Your task to perform on an android device: toggle pop-ups in chrome Image 0: 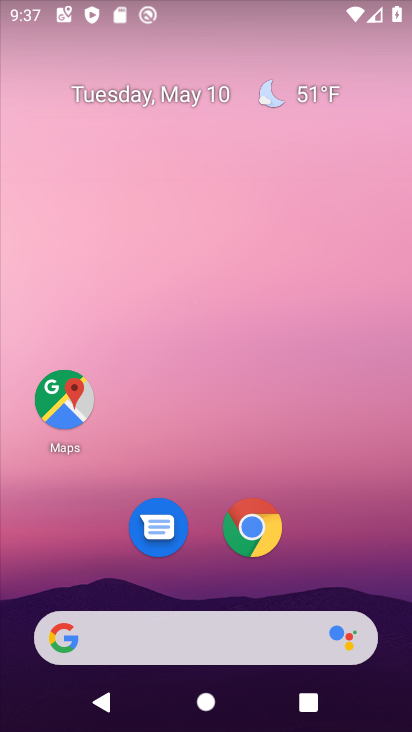
Step 0: click (257, 524)
Your task to perform on an android device: toggle pop-ups in chrome Image 1: 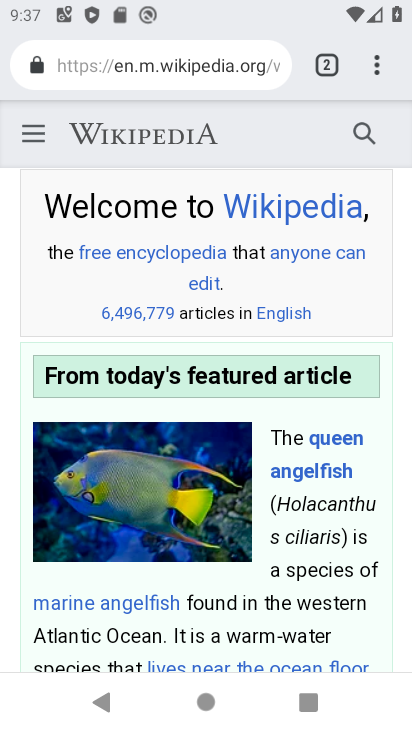
Step 1: click (378, 71)
Your task to perform on an android device: toggle pop-ups in chrome Image 2: 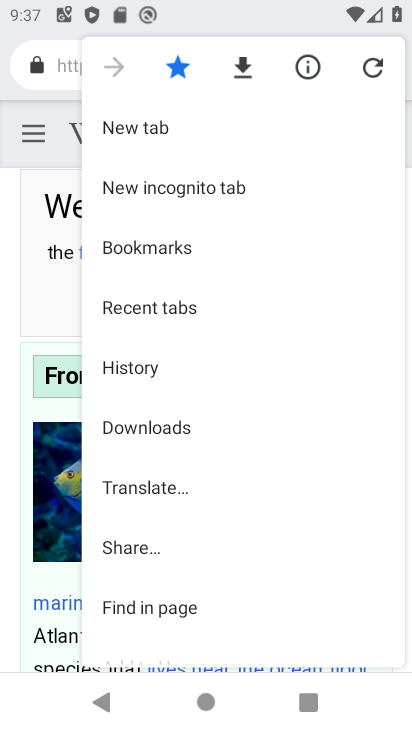
Step 2: drag from (158, 572) to (187, 206)
Your task to perform on an android device: toggle pop-ups in chrome Image 3: 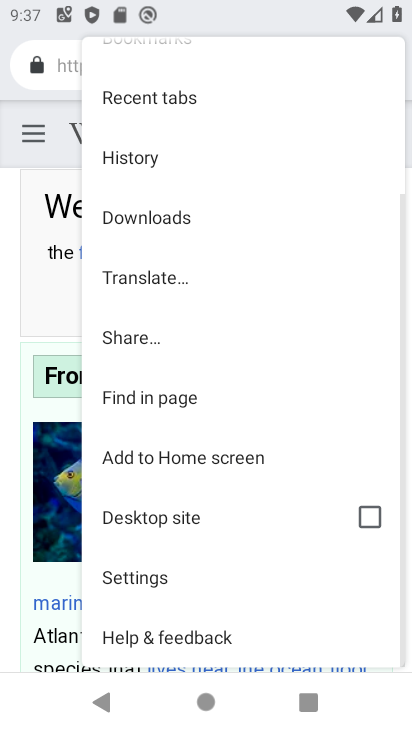
Step 3: click (139, 574)
Your task to perform on an android device: toggle pop-ups in chrome Image 4: 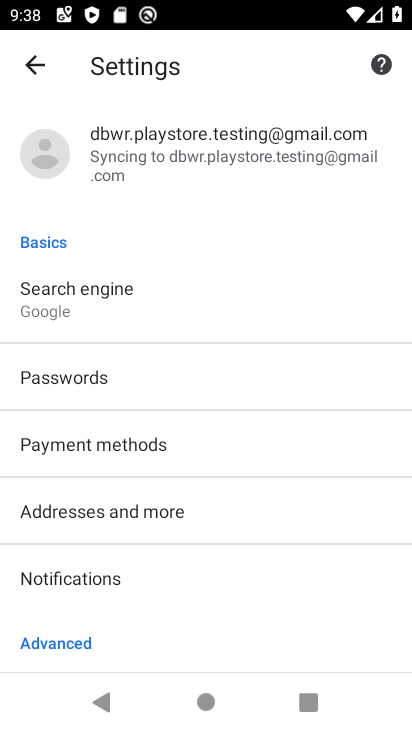
Step 4: drag from (134, 633) to (158, 285)
Your task to perform on an android device: toggle pop-ups in chrome Image 5: 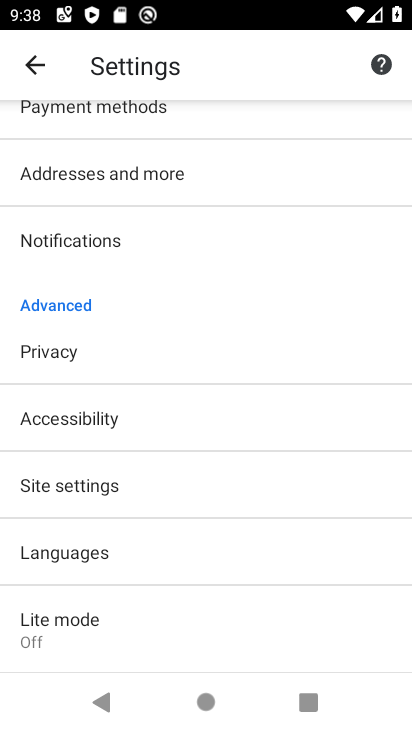
Step 5: click (88, 488)
Your task to perform on an android device: toggle pop-ups in chrome Image 6: 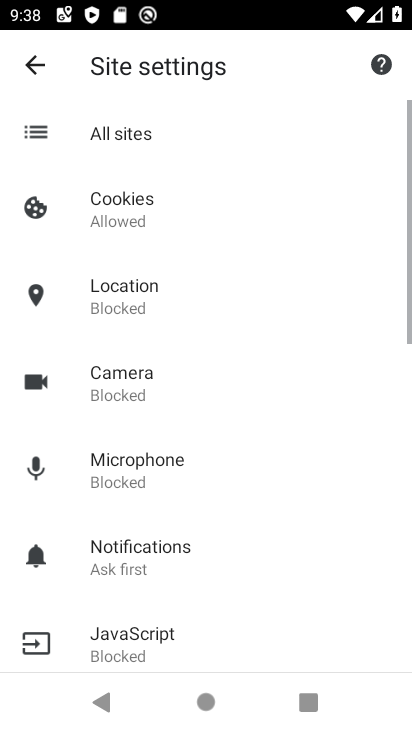
Step 6: drag from (176, 589) to (180, 273)
Your task to perform on an android device: toggle pop-ups in chrome Image 7: 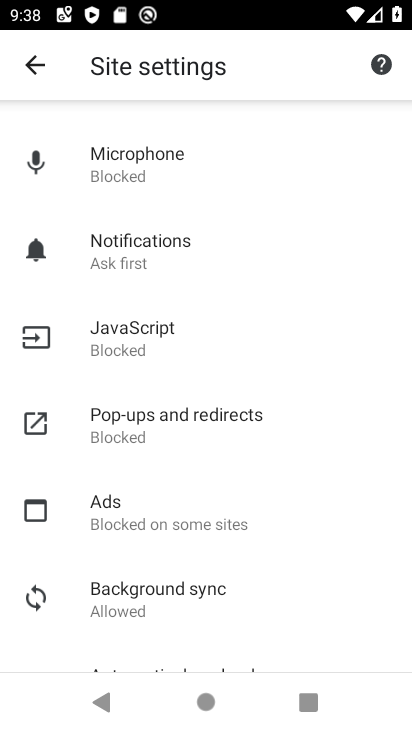
Step 7: click (148, 429)
Your task to perform on an android device: toggle pop-ups in chrome Image 8: 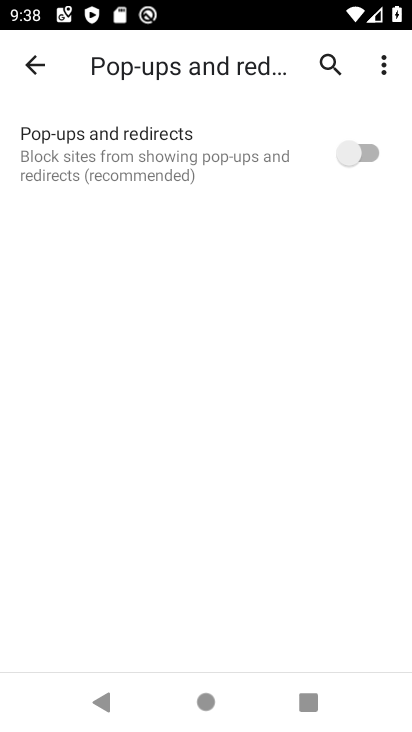
Step 8: click (366, 147)
Your task to perform on an android device: toggle pop-ups in chrome Image 9: 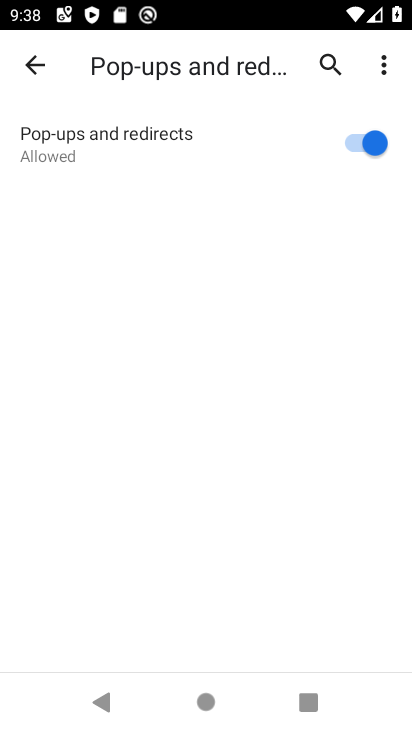
Step 9: click (351, 141)
Your task to perform on an android device: toggle pop-ups in chrome Image 10: 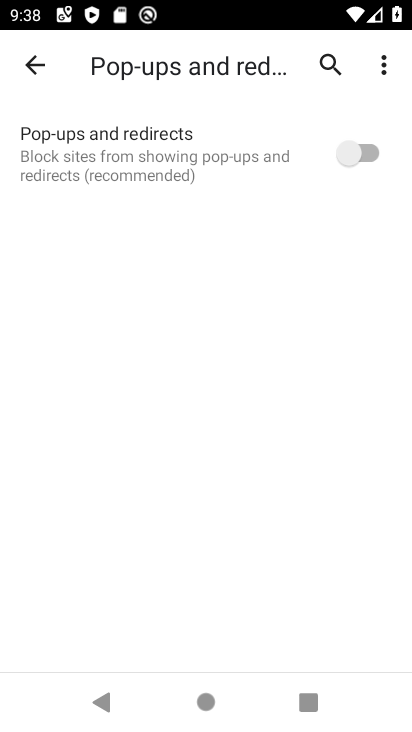
Step 10: task complete